Your task to perform on an android device: Go to Yahoo.com Image 0: 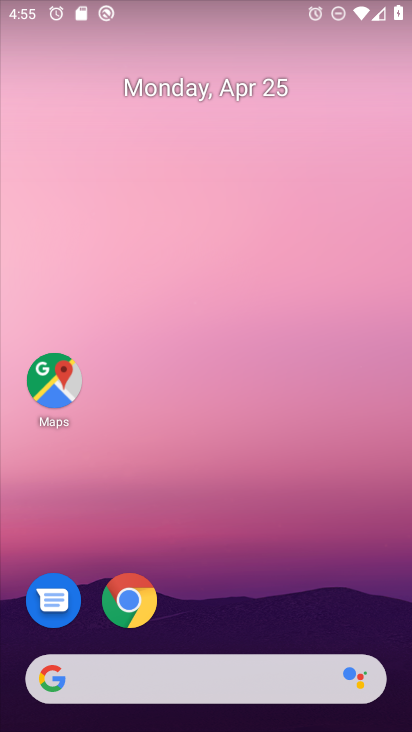
Step 0: drag from (276, 495) to (193, 5)
Your task to perform on an android device: Go to Yahoo.com Image 1: 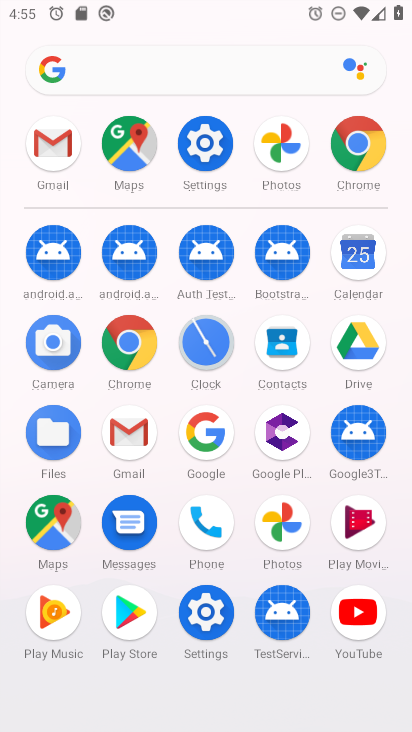
Step 1: drag from (12, 528) to (9, 241)
Your task to perform on an android device: Go to Yahoo.com Image 2: 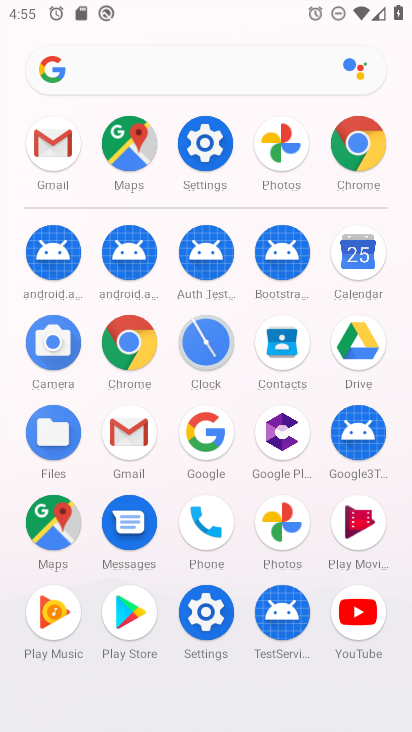
Step 2: click (127, 339)
Your task to perform on an android device: Go to Yahoo.com Image 3: 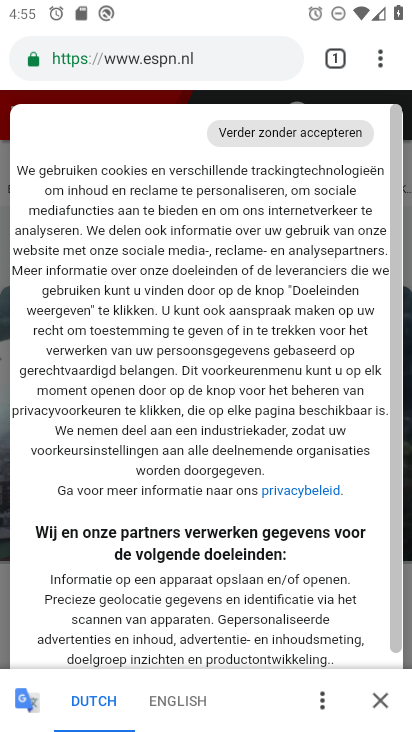
Step 3: click (162, 54)
Your task to perform on an android device: Go to Yahoo.com Image 4: 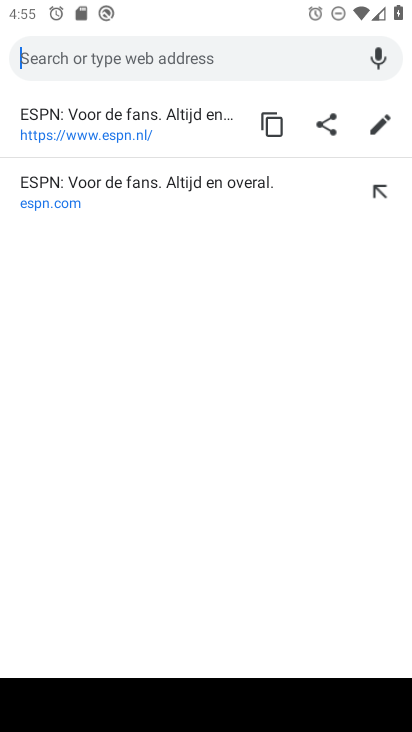
Step 4: type "Yahoo.com"
Your task to perform on an android device: Go to Yahoo.com Image 5: 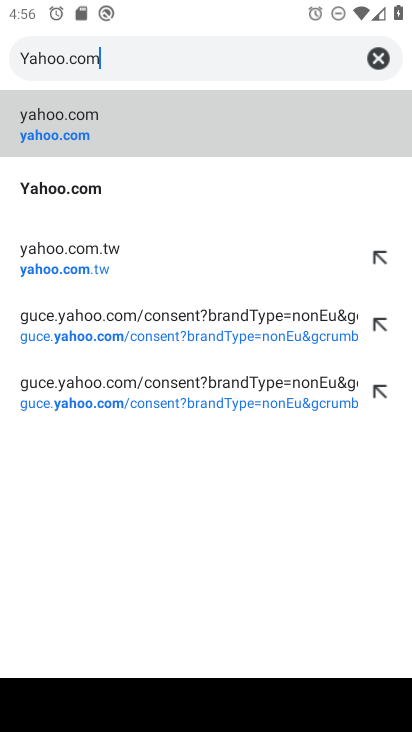
Step 5: click (75, 137)
Your task to perform on an android device: Go to Yahoo.com Image 6: 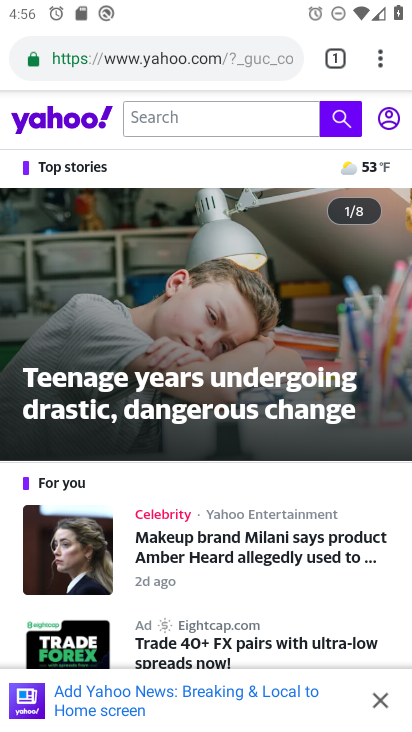
Step 6: task complete